Your task to perform on an android device: What's the weather going to be this weekend? Image 0: 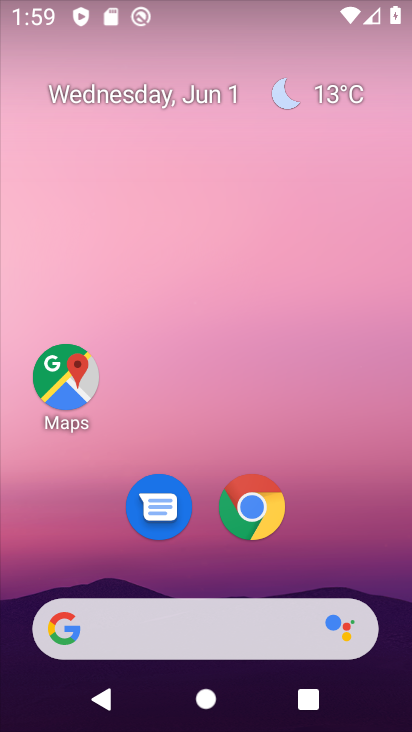
Step 0: click (333, 107)
Your task to perform on an android device: What's the weather going to be this weekend? Image 1: 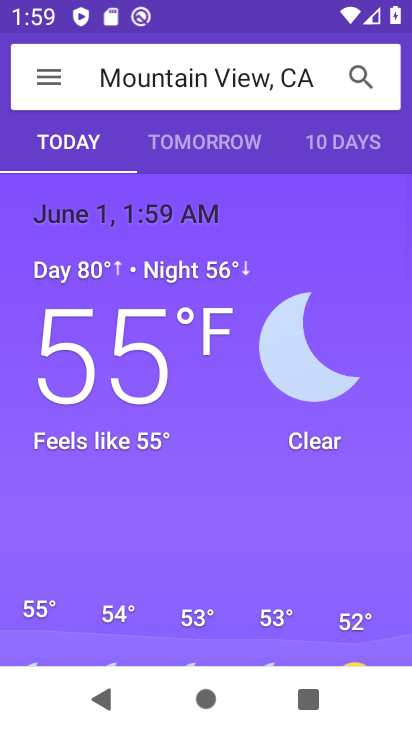
Step 1: click (321, 144)
Your task to perform on an android device: What's the weather going to be this weekend? Image 2: 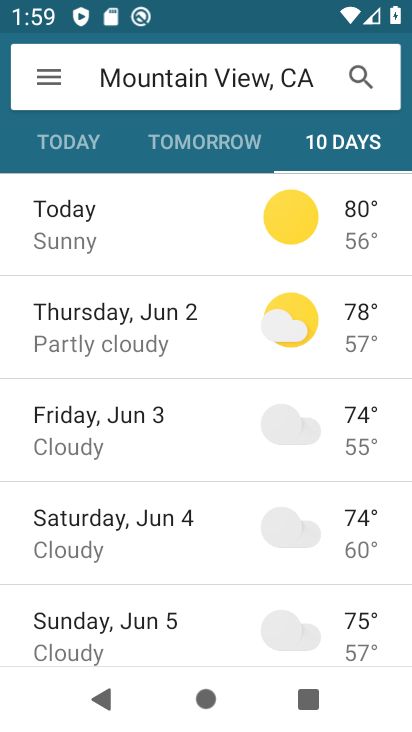
Step 2: task complete